Your task to perform on an android device: Search for sushi restaurants on Maps Image 0: 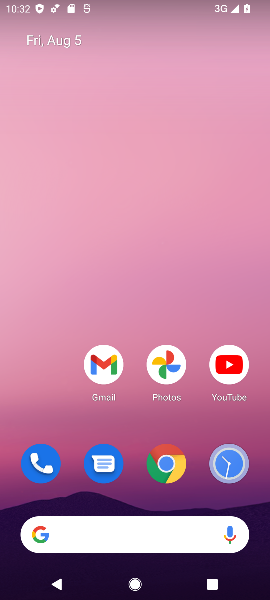
Step 0: drag from (140, 494) to (176, 176)
Your task to perform on an android device: Search for sushi restaurants on Maps Image 1: 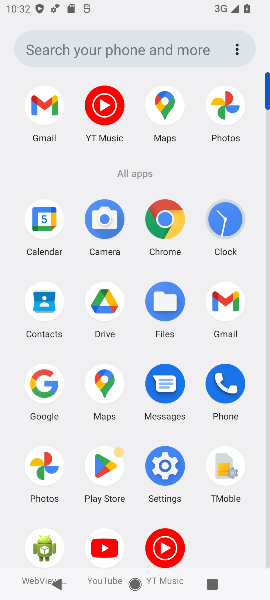
Step 1: click (155, 107)
Your task to perform on an android device: Search for sushi restaurants on Maps Image 2: 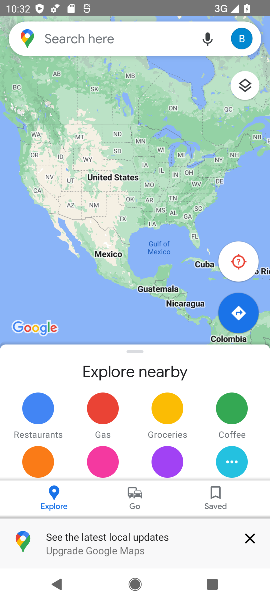
Step 2: click (117, 39)
Your task to perform on an android device: Search for sushi restaurants on Maps Image 3: 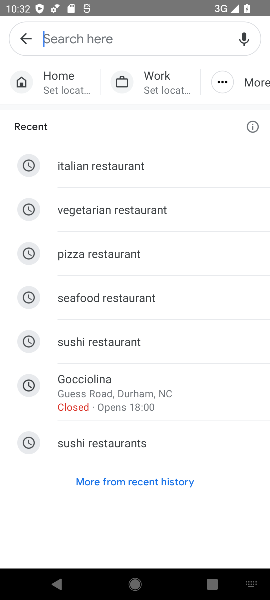
Step 3: click (127, 342)
Your task to perform on an android device: Search for sushi restaurants on Maps Image 4: 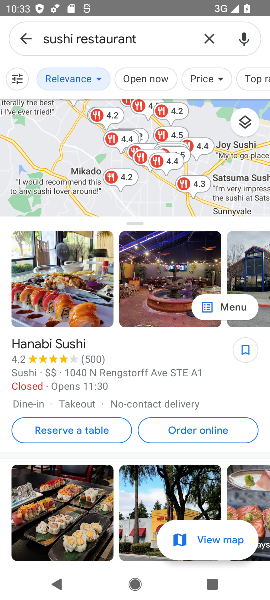
Step 4: task complete